Your task to perform on an android device: Open the Play Movies app and select the watchlist tab. Image 0: 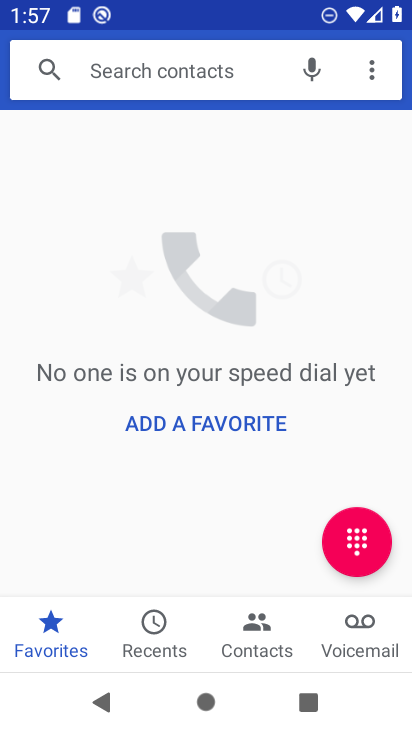
Step 0: press home button
Your task to perform on an android device: Open the Play Movies app and select the watchlist tab. Image 1: 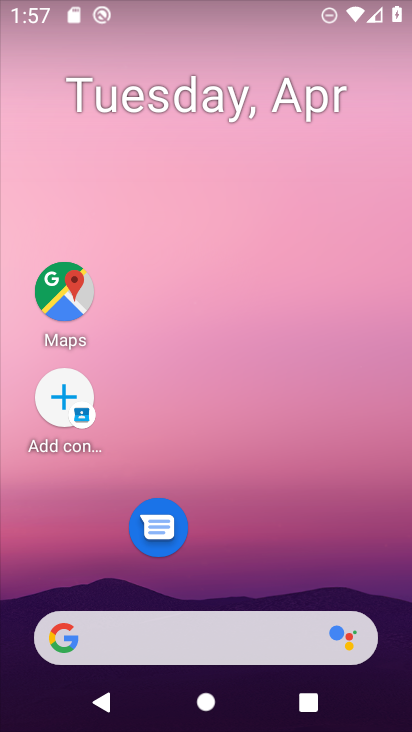
Step 1: drag from (234, 594) to (223, 64)
Your task to perform on an android device: Open the Play Movies app and select the watchlist tab. Image 2: 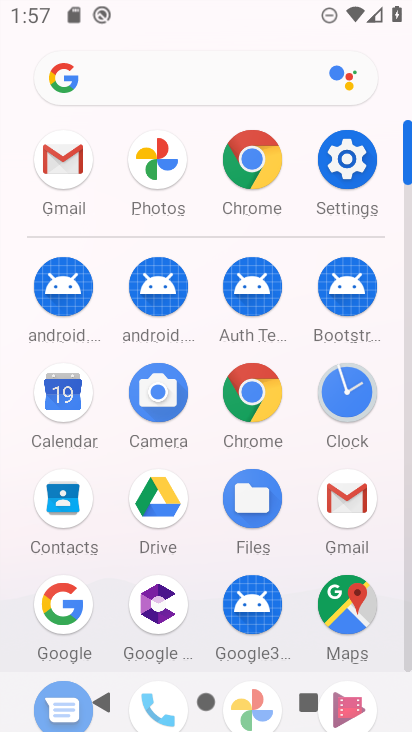
Step 2: drag from (299, 596) to (288, 299)
Your task to perform on an android device: Open the Play Movies app and select the watchlist tab. Image 3: 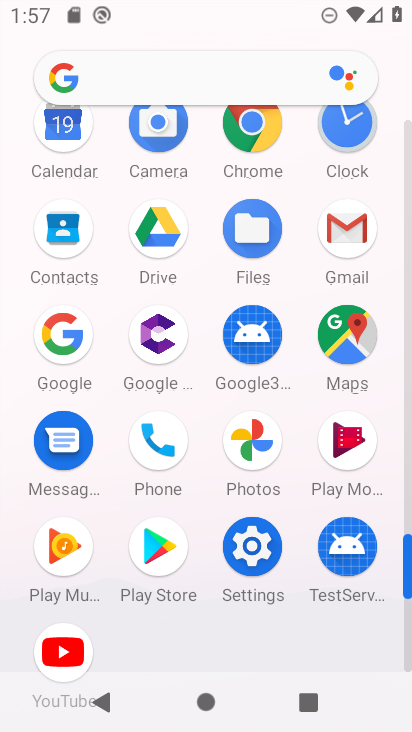
Step 3: click (341, 439)
Your task to perform on an android device: Open the Play Movies app and select the watchlist tab. Image 4: 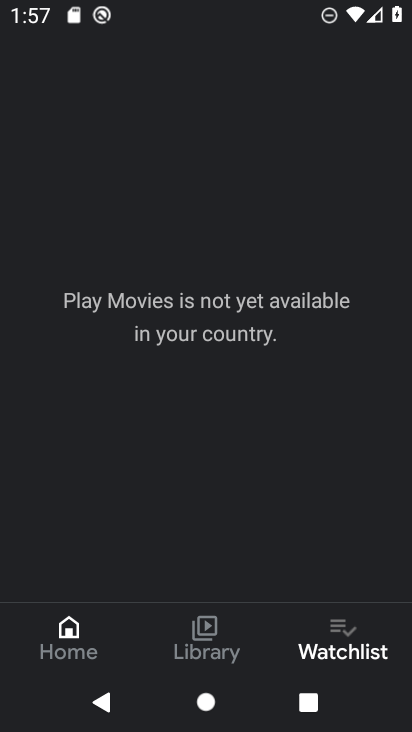
Step 4: click (339, 620)
Your task to perform on an android device: Open the Play Movies app and select the watchlist tab. Image 5: 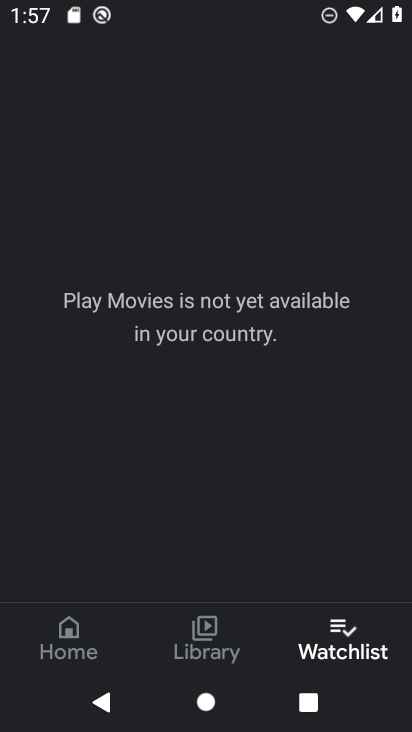
Step 5: task complete